Your task to perform on an android device: What's on the menu at Five Guys? Image 0: 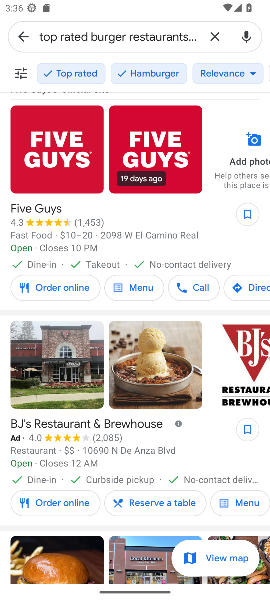
Step 0: press home button
Your task to perform on an android device: What's on the menu at Five Guys? Image 1: 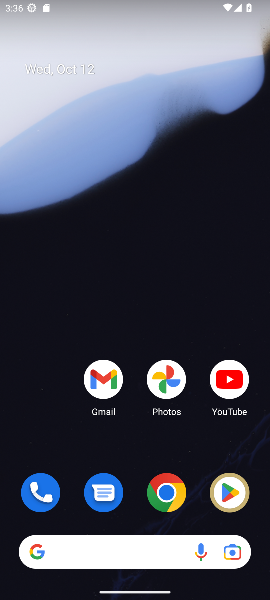
Step 1: click (176, 492)
Your task to perform on an android device: What's on the menu at Five Guys? Image 2: 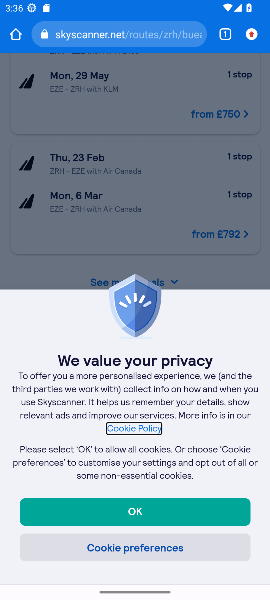
Step 2: click (128, 31)
Your task to perform on an android device: What's on the menu at Five Guys? Image 3: 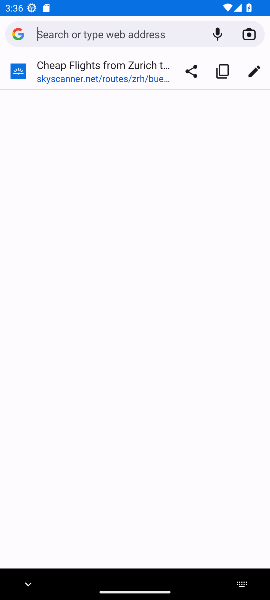
Step 3: type "menu at Five Guys"
Your task to perform on an android device: What's on the menu at Five Guys? Image 4: 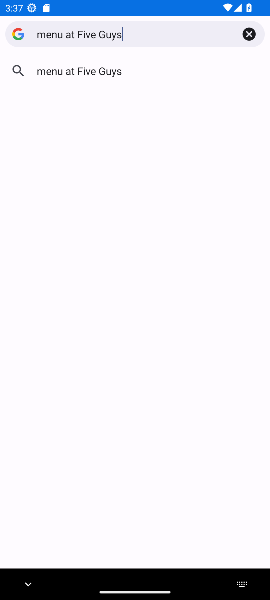
Step 4: click (91, 80)
Your task to perform on an android device: What's on the menu at Five Guys? Image 5: 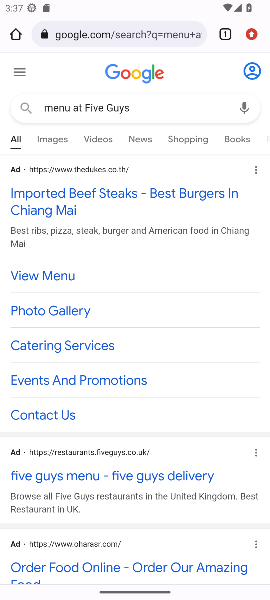
Step 5: click (66, 474)
Your task to perform on an android device: What's on the menu at Five Guys? Image 6: 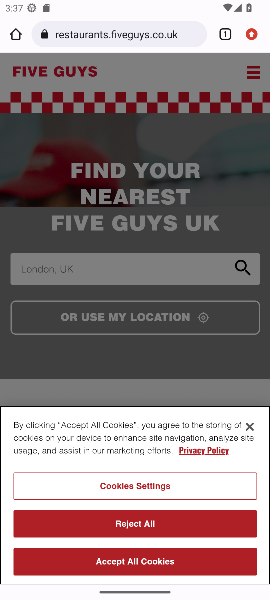
Step 6: drag from (157, 382) to (159, 52)
Your task to perform on an android device: What's on the menu at Five Guys? Image 7: 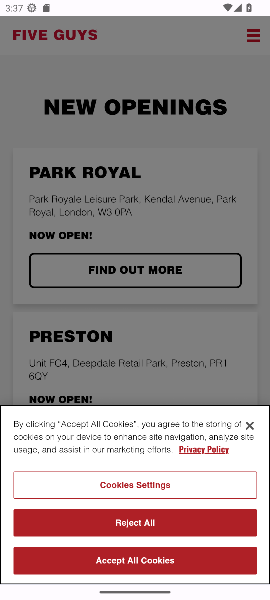
Step 7: drag from (145, 283) to (162, 47)
Your task to perform on an android device: What's on the menu at Five Guys? Image 8: 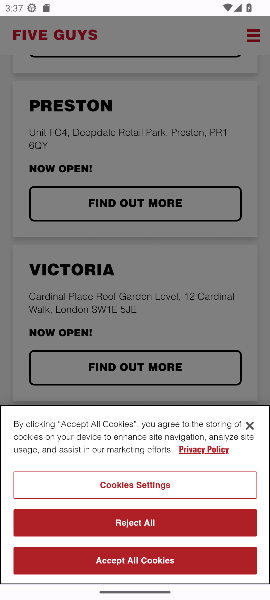
Step 8: drag from (136, 353) to (147, 86)
Your task to perform on an android device: What's on the menu at Five Guys? Image 9: 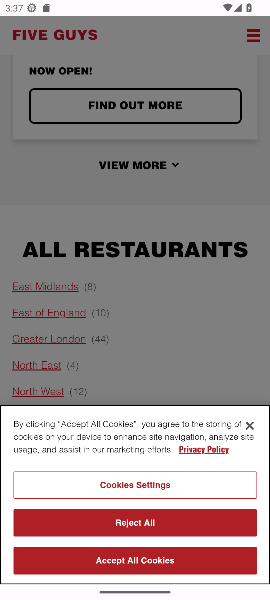
Step 9: drag from (132, 322) to (145, 114)
Your task to perform on an android device: What's on the menu at Five Guys? Image 10: 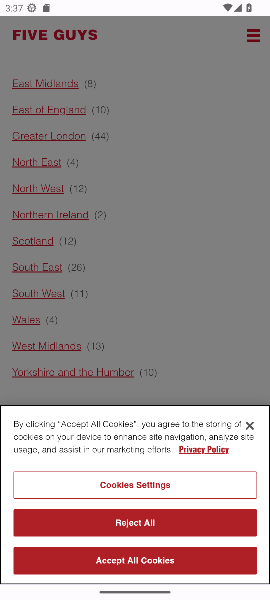
Step 10: drag from (107, 339) to (123, 68)
Your task to perform on an android device: What's on the menu at Five Guys? Image 11: 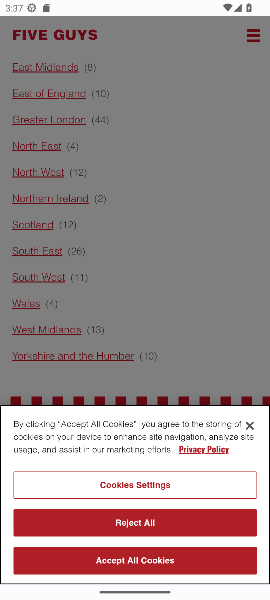
Step 11: drag from (112, 344) to (131, 74)
Your task to perform on an android device: What's on the menu at Five Guys? Image 12: 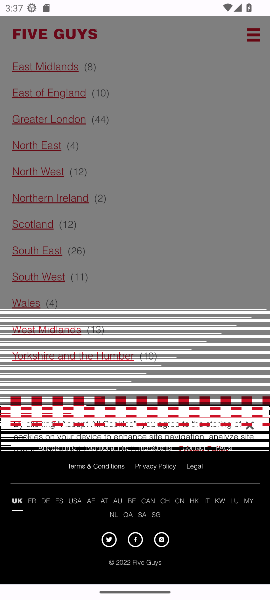
Step 12: drag from (139, 260) to (128, 69)
Your task to perform on an android device: What's on the menu at Five Guys? Image 13: 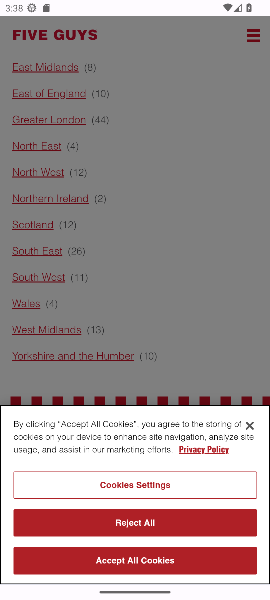
Step 13: drag from (163, 345) to (202, 6)
Your task to perform on an android device: What's on the menu at Five Guys? Image 14: 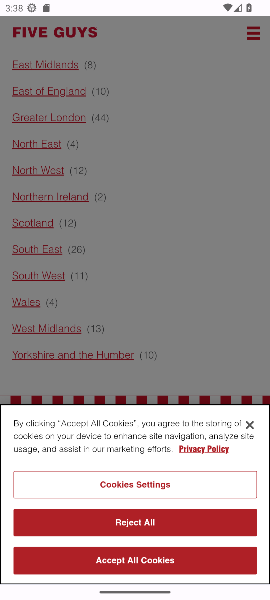
Step 14: click (246, 421)
Your task to perform on an android device: What's on the menu at Five Guys? Image 15: 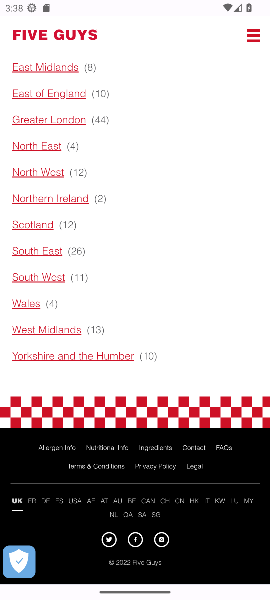
Step 15: drag from (95, 281) to (95, 384)
Your task to perform on an android device: What's on the menu at Five Guys? Image 16: 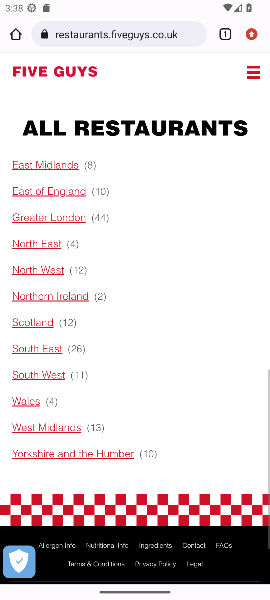
Step 16: drag from (119, 143) to (128, 402)
Your task to perform on an android device: What's on the menu at Five Guys? Image 17: 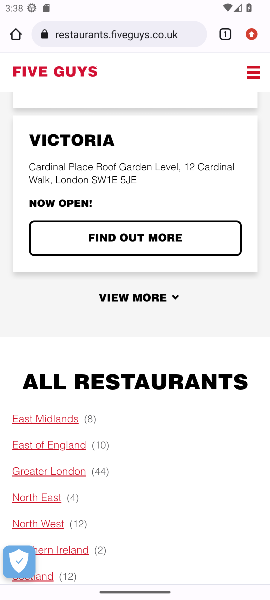
Step 17: drag from (128, 328) to (107, 503)
Your task to perform on an android device: What's on the menu at Five Guys? Image 18: 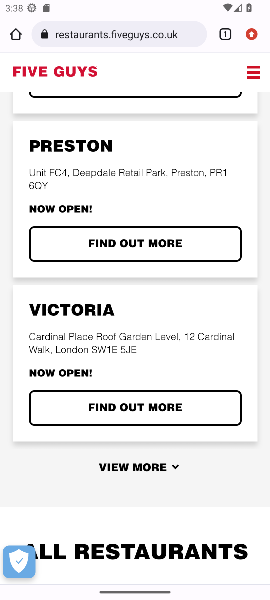
Step 18: drag from (115, 184) to (104, 536)
Your task to perform on an android device: What's on the menu at Five Guys? Image 19: 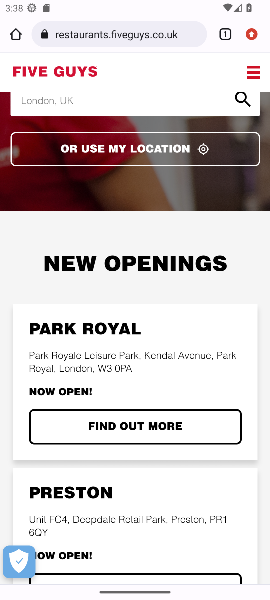
Step 19: drag from (157, 231) to (166, 535)
Your task to perform on an android device: What's on the menu at Five Guys? Image 20: 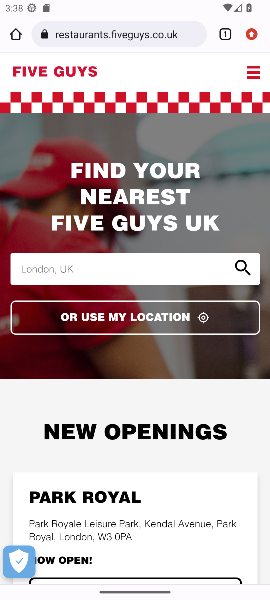
Step 20: click (258, 75)
Your task to perform on an android device: What's on the menu at Five Guys? Image 21: 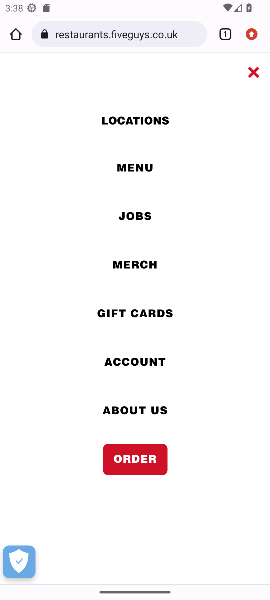
Step 21: click (120, 168)
Your task to perform on an android device: What's on the menu at Five Guys? Image 22: 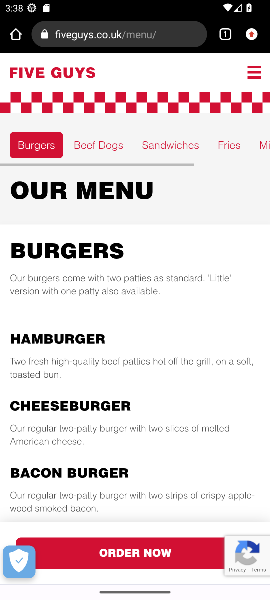
Step 22: task complete